Your task to perform on an android device: open chrome and create a bookmark for the current page Image 0: 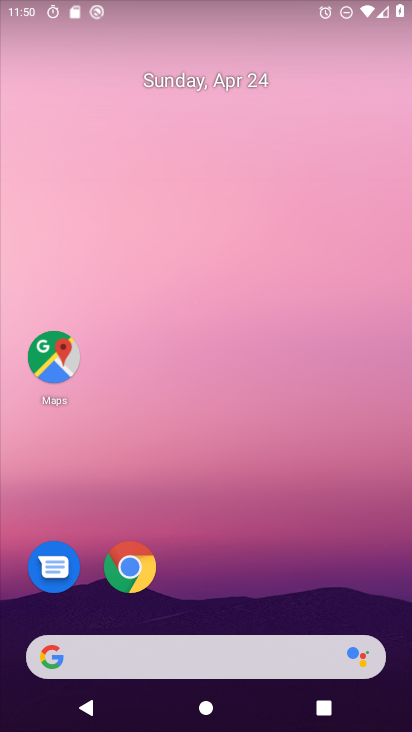
Step 0: drag from (314, 659) to (292, 8)
Your task to perform on an android device: open chrome and create a bookmark for the current page Image 1: 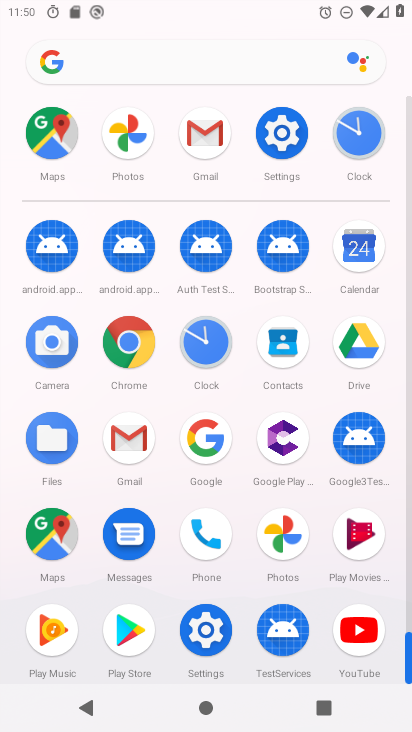
Step 1: drag from (292, 658) to (362, 32)
Your task to perform on an android device: open chrome and create a bookmark for the current page Image 2: 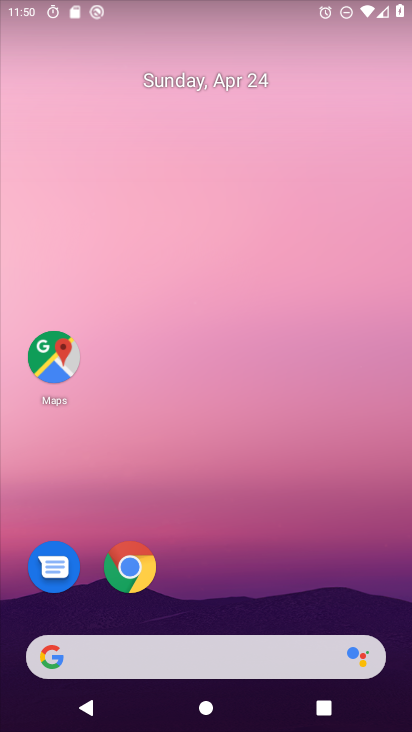
Step 2: click (150, 353)
Your task to perform on an android device: open chrome and create a bookmark for the current page Image 3: 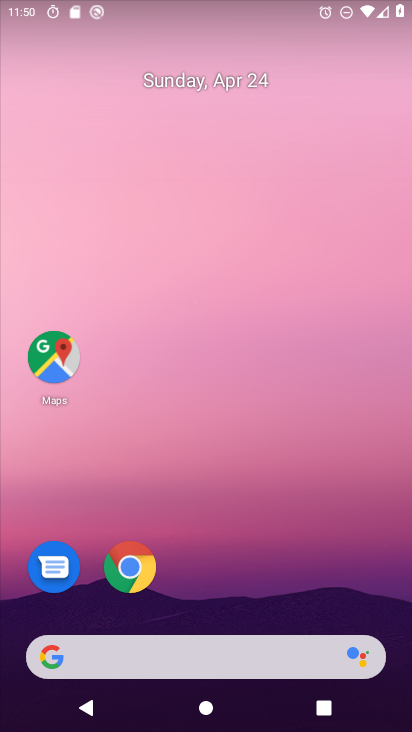
Step 3: drag from (192, 617) to (250, 8)
Your task to perform on an android device: open chrome and create a bookmark for the current page Image 4: 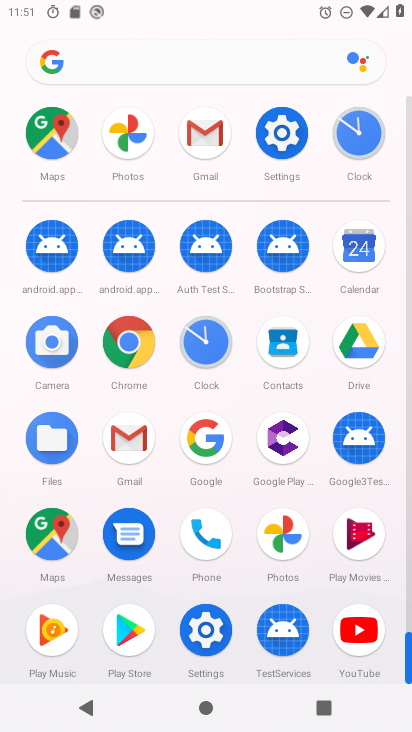
Step 4: click (149, 340)
Your task to perform on an android device: open chrome and create a bookmark for the current page Image 5: 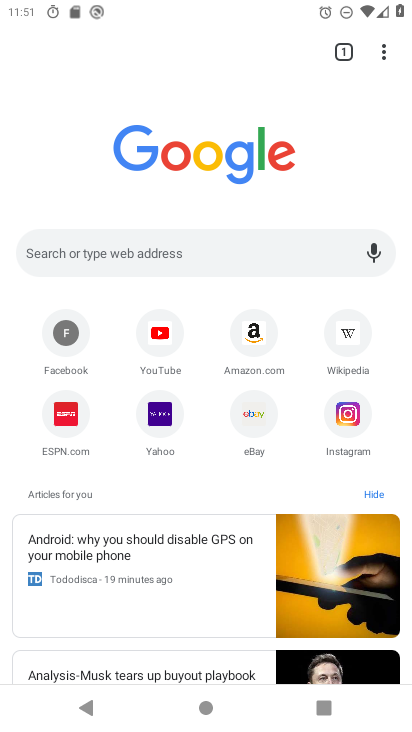
Step 5: click (381, 51)
Your task to perform on an android device: open chrome and create a bookmark for the current page Image 6: 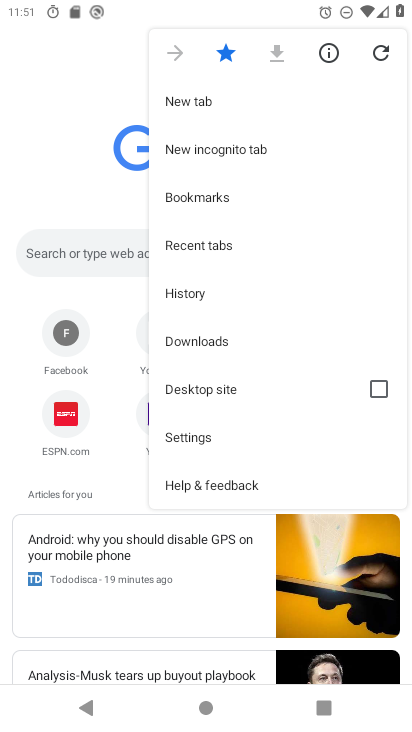
Step 6: click (223, 52)
Your task to perform on an android device: open chrome and create a bookmark for the current page Image 7: 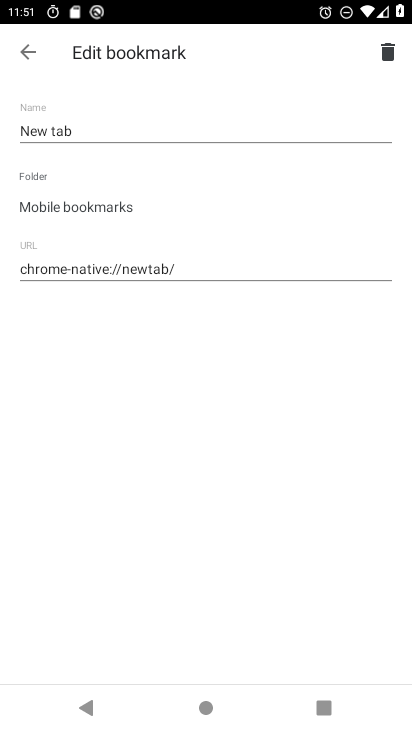
Step 7: click (34, 55)
Your task to perform on an android device: open chrome and create a bookmark for the current page Image 8: 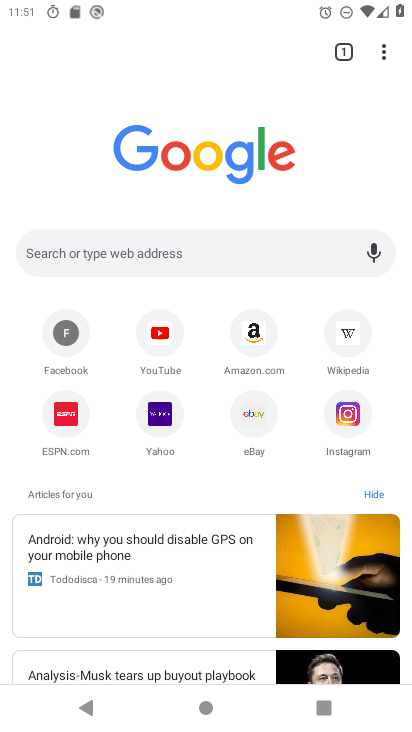
Step 8: task complete